Your task to perform on an android device: Go to Amazon Image 0: 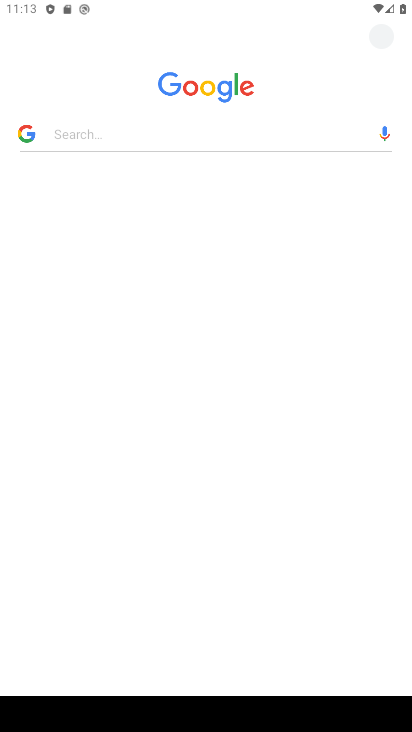
Step 0: press home button
Your task to perform on an android device: Go to Amazon Image 1: 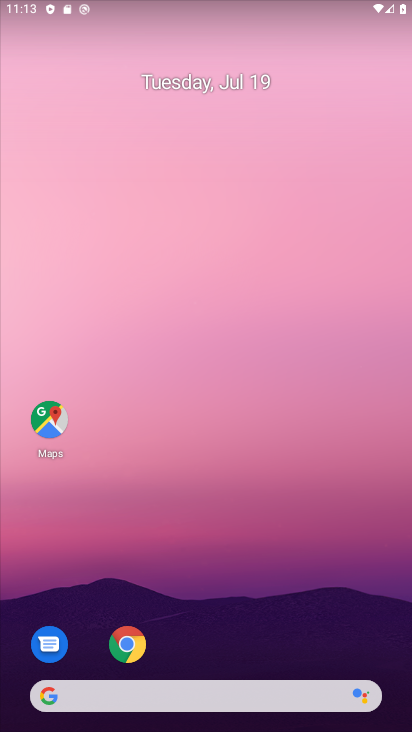
Step 1: drag from (278, 672) to (273, 52)
Your task to perform on an android device: Go to Amazon Image 2: 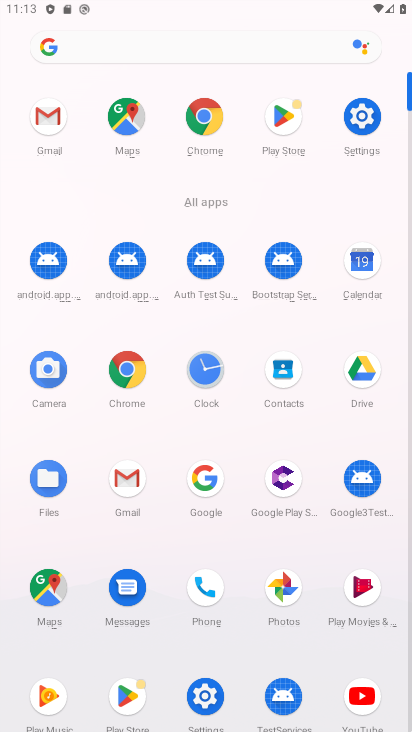
Step 2: click (193, 135)
Your task to perform on an android device: Go to Amazon Image 3: 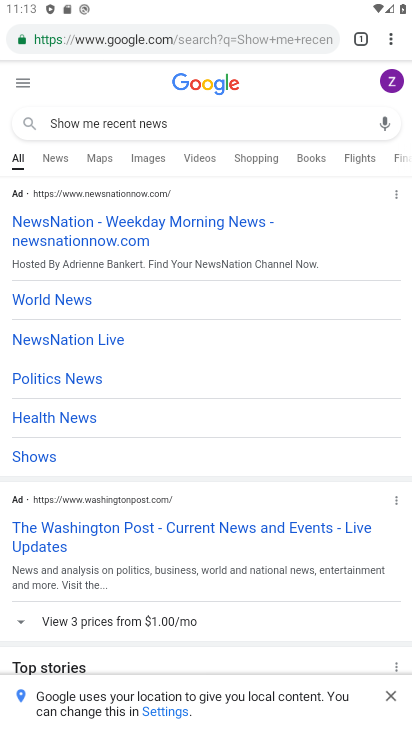
Step 3: click (218, 39)
Your task to perform on an android device: Go to Amazon Image 4: 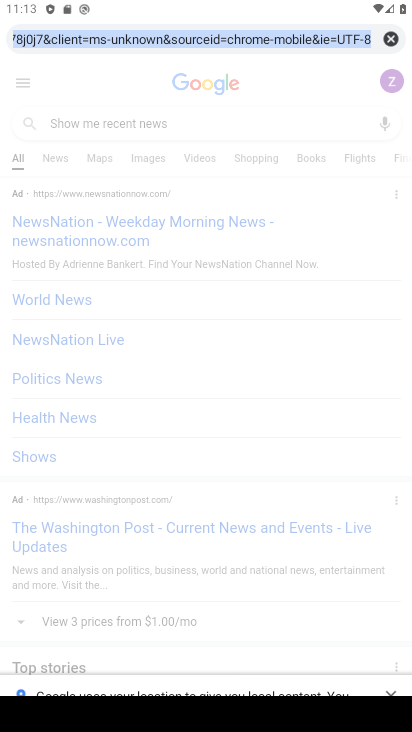
Step 4: type "Amazon.com"
Your task to perform on an android device: Go to Amazon Image 5: 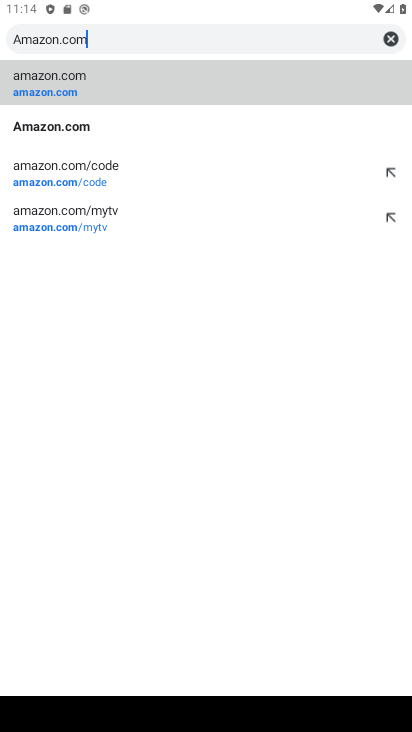
Step 5: click (116, 74)
Your task to perform on an android device: Go to Amazon Image 6: 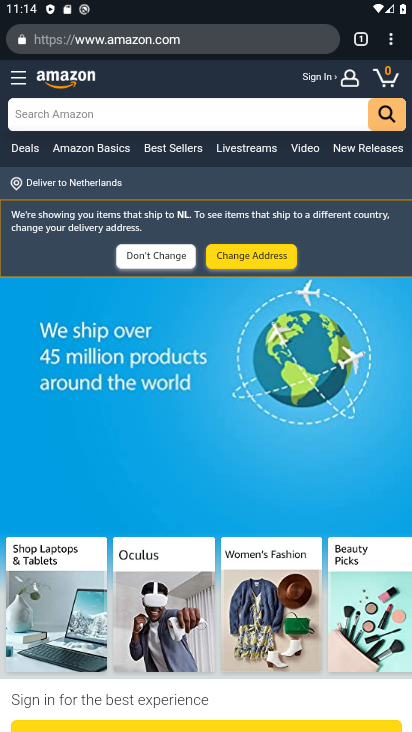
Step 6: task complete